Your task to perform on an android device: snooze an email in the gmail app Image 0: 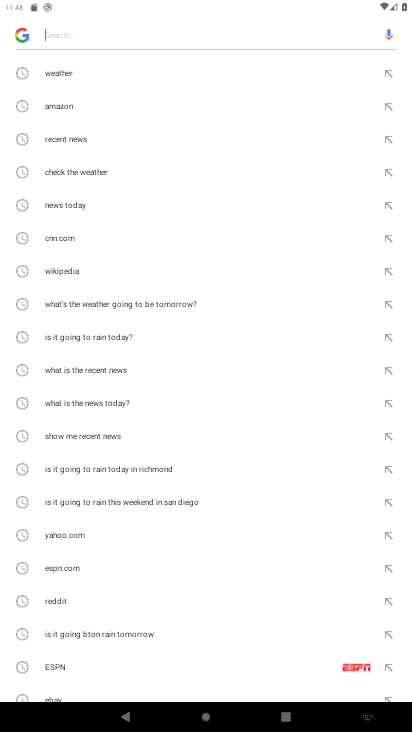
Step 0: press home button
Your task to perform on an android device: snooze an email in the gmail app Image 1: 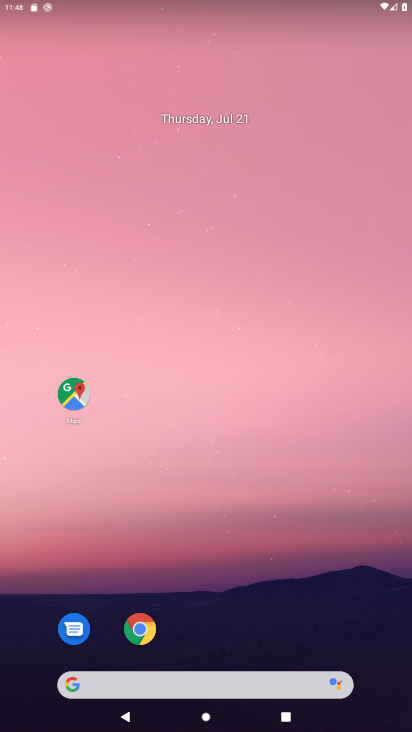
Step 1: drag from (192, 562) to (391, 304)
Your task to perform on an android device: snooze an email in the gmail app Image 2: 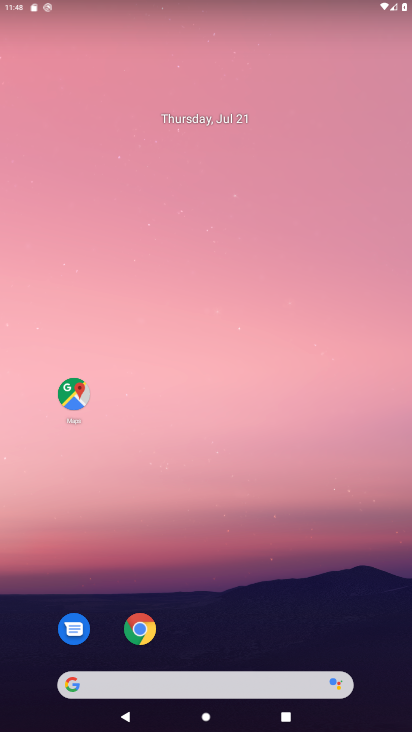
Step 2: drag from (234, 633) to (258, 0)
Your task to perform on an android device: snooze an email in the gmail app Image 3: 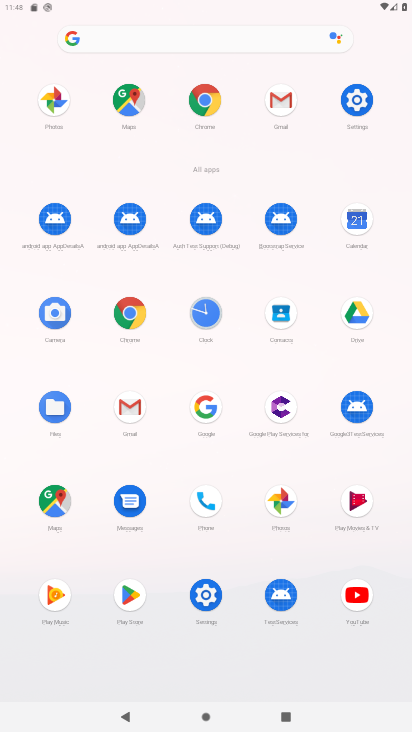
Step 3: click (122, 419)
Your task to perform on an android device: snooze an email in the gmail app Image 4: 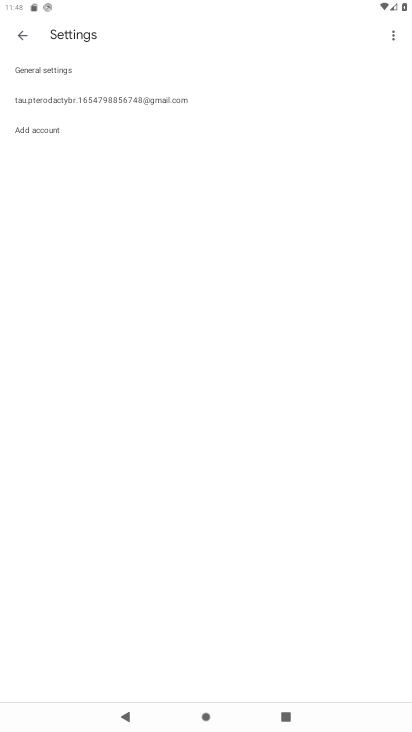
Step 4: click (32, 34)
Your task to perform on an android device: snooze an email in the gmail app Image 5: 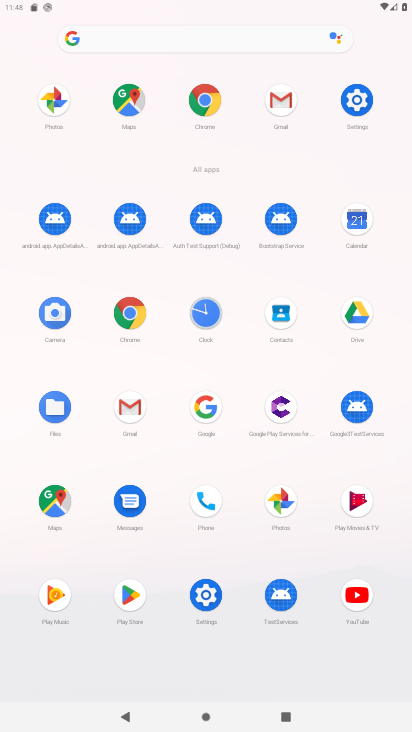
Step 5: click (123, 417)
Your task to perform on an android device: snooze an email in the gmail app Image 6: 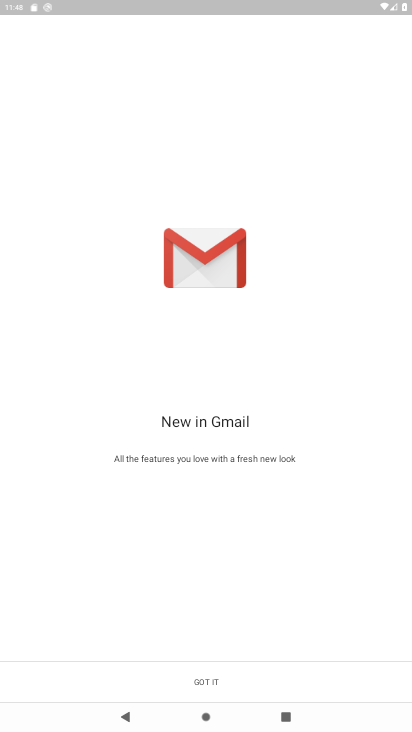
Step 6: click (242, 680)
Your task to perform on an android device: snooze an email in the gmail app Image 7: 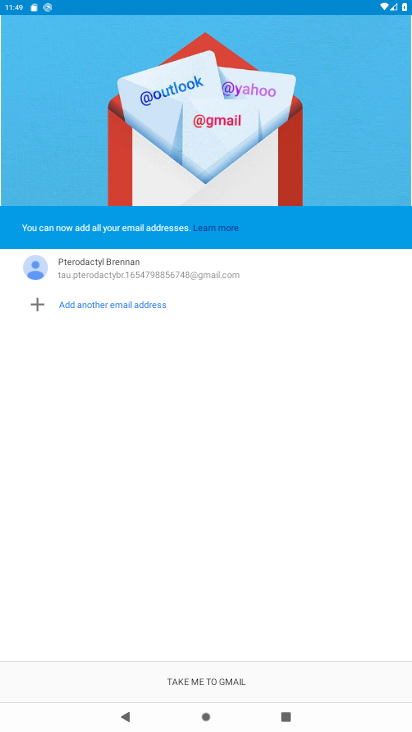
Step 7: click (215, 680)
Your task to perform on an android device: snooze an email in the gmail app Image 8: 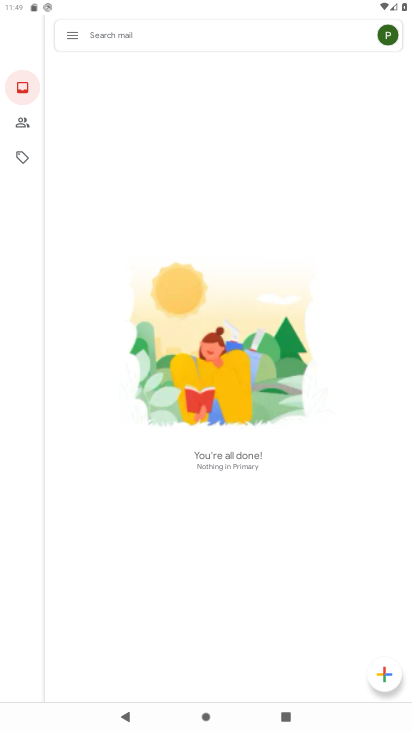
Step 8: click (72, 36)
Your task to perform on an android device: snooze an email in the gmail app Image 9: 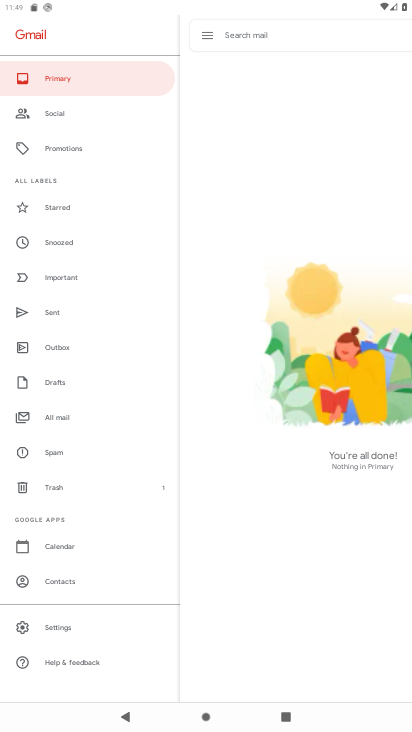
Step 9: click (61, 413)
Your task to perform on an android device: snooze an email in the gmail app Image 10: 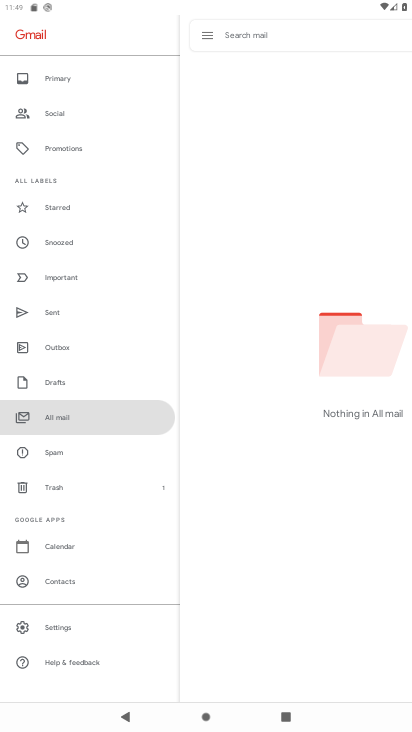
Step 10: task complete